Your task to perform on an android device: Check the news Image 0: 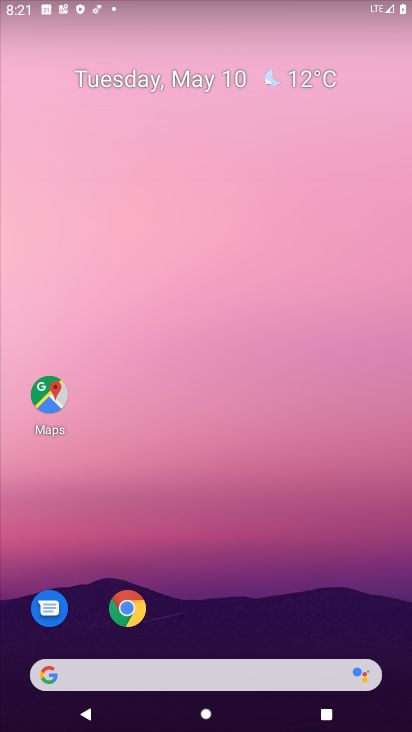
Step 0: click (48, 679)
Your task to perform on an android device: Check the news Image 1: 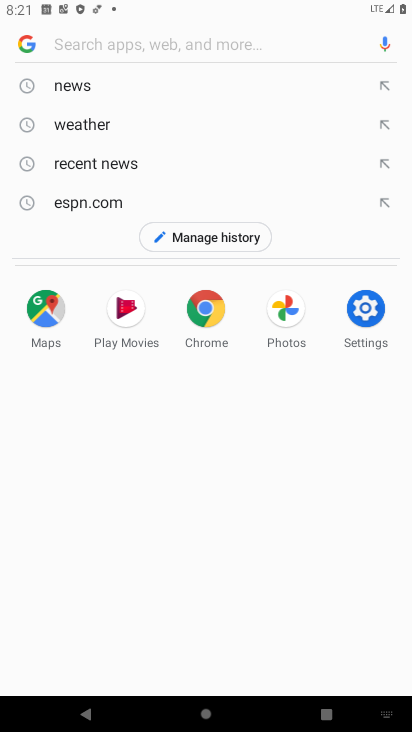
Step 1: click (84, 86)
Your task to perform on an android device: Check the news Image 2: 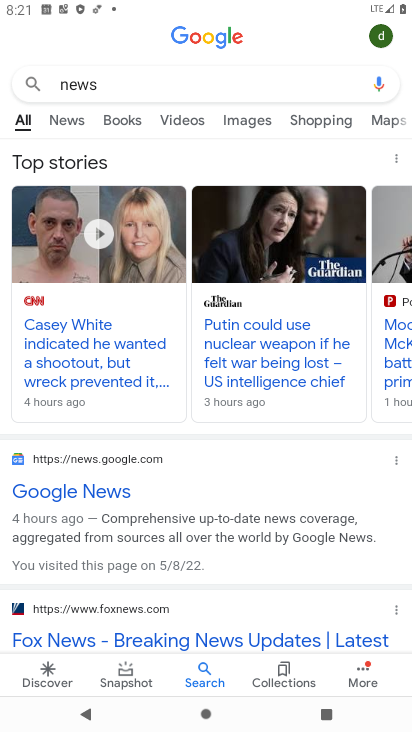
Step 2: click (62, 115)
Your task to perform on an android device: Check the news Image 3: 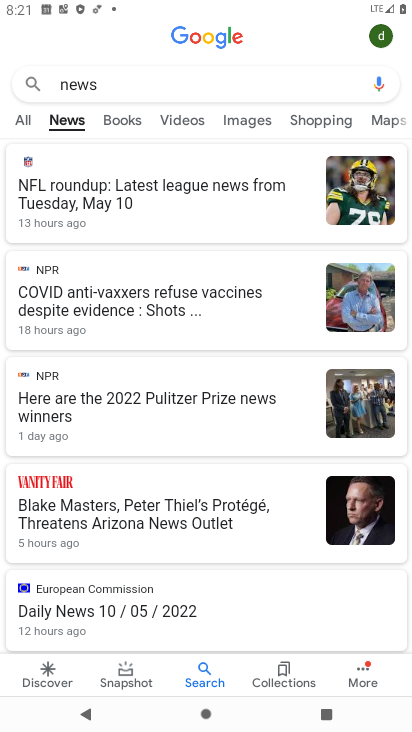
Step 3: task complete